Your task to perform on an android device: turn on location history Image 0: 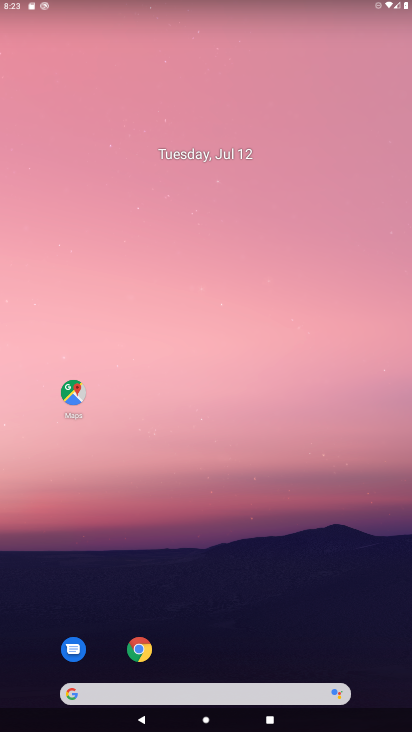
Step 0: drag from (195, 610) to (221, 76)
Your task to perform on an android device: turn on location history Image 1: 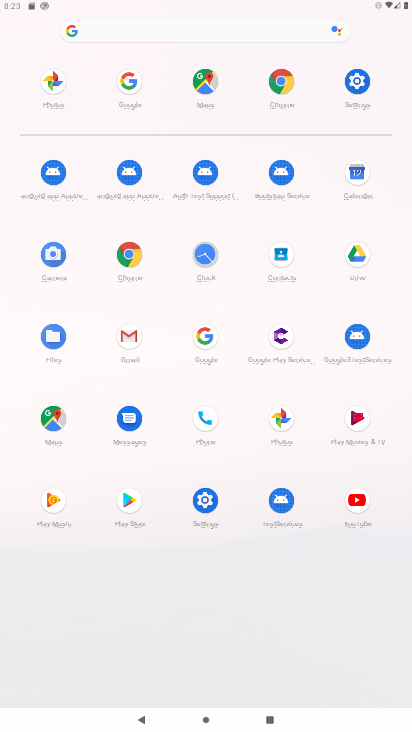
Step 1: click (353, 83)
Your task to perform on an android device: turn on location history Image 2: 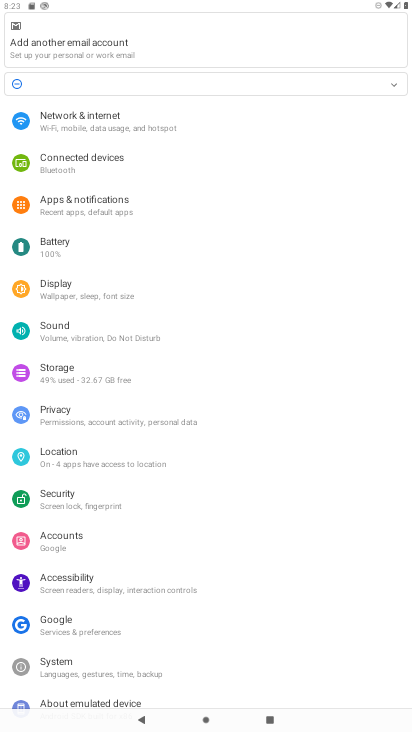
Step 2: click (88, 461)
Your task to perform on an android device: turn on location history Image 3: 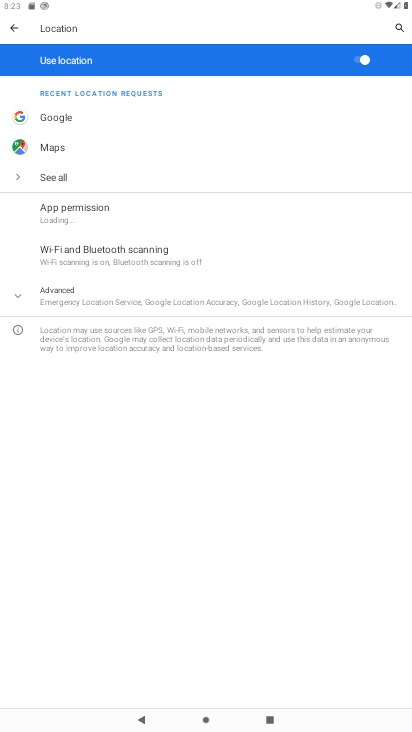
Step 3: click (73, 303)
Your task to perform on an android device: turn on location history Image 4: 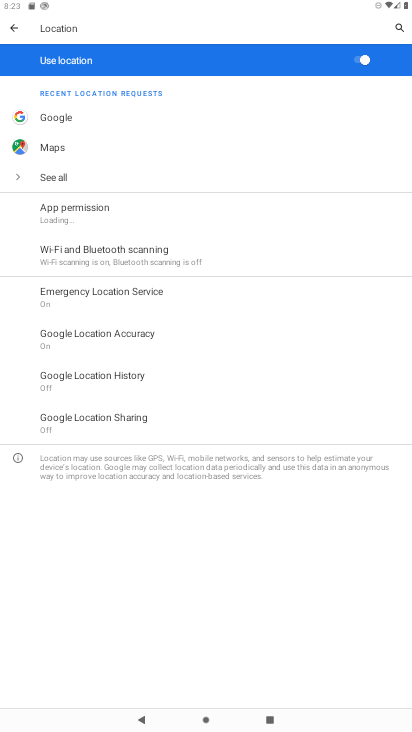
Step 4: click (120, 375)
Your task to perform on an android device: turn on location history Image 5: 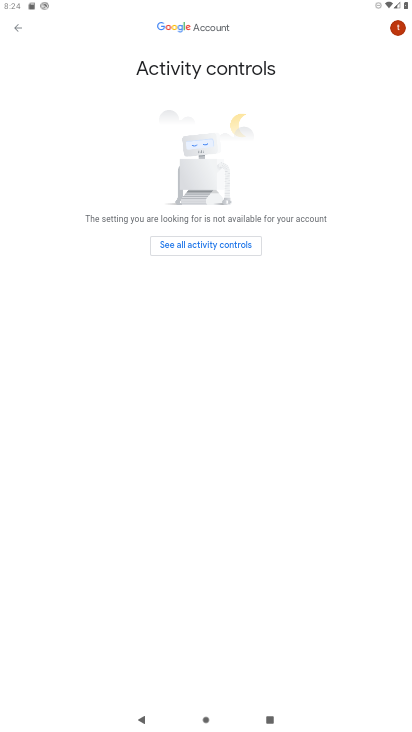
Step 5: task complete